Your task to perform on an android device: add a contact Image 0: 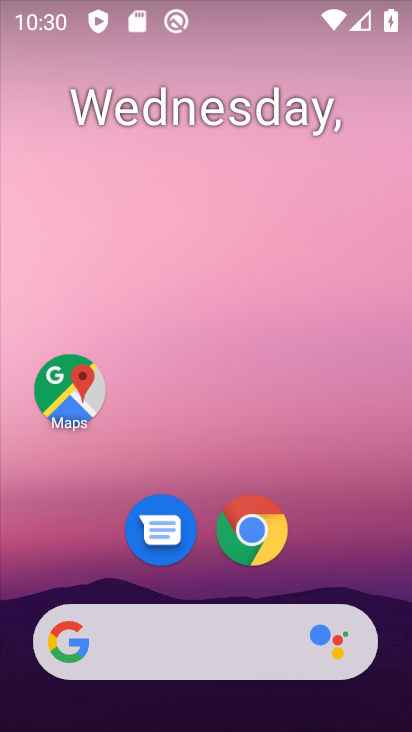
Step 0: drag from (338, 538) to (314, 127)
Your task to perform on an android device: add a contact Image 1: 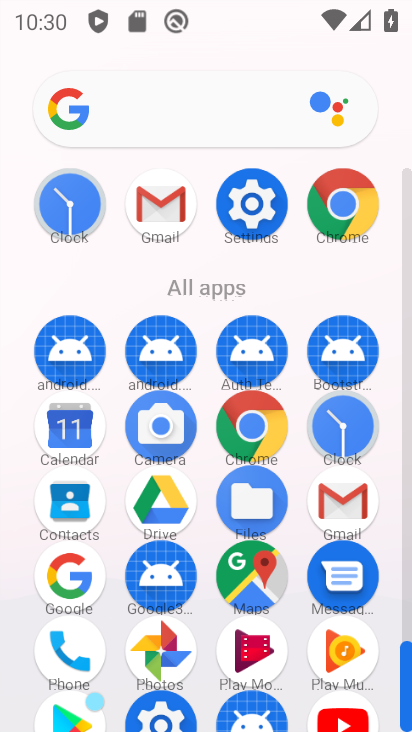
Step 1: click (74, 503)
Your task to perform on an android device: add a contact Image 2: 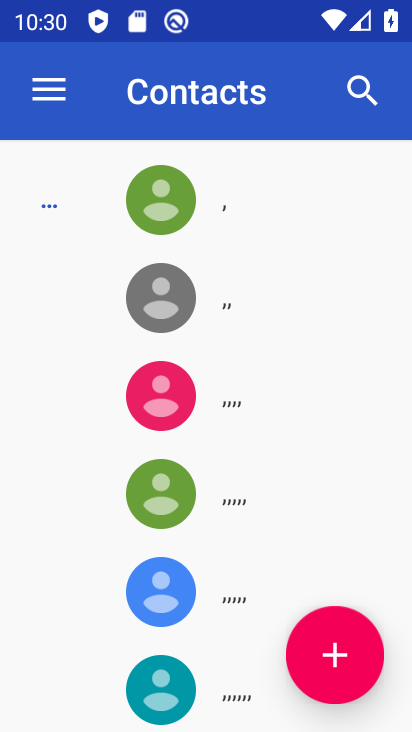
Step 2: click (340, 673)
Your task to perform on an android device: add a contact Image 3: 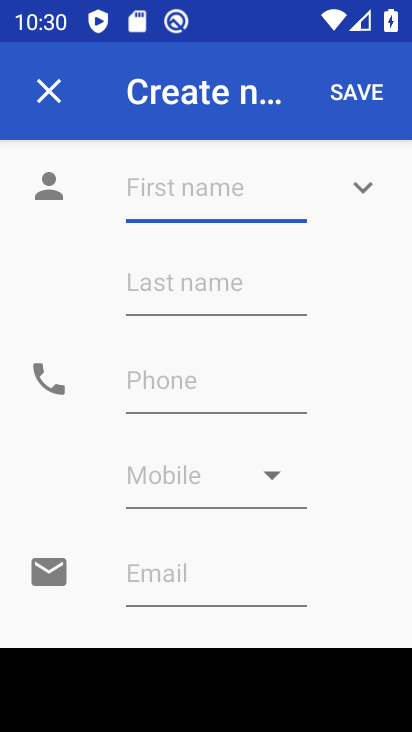
Step 3: type "naman"
Your task to perform on an android device: add a contact Image 4: 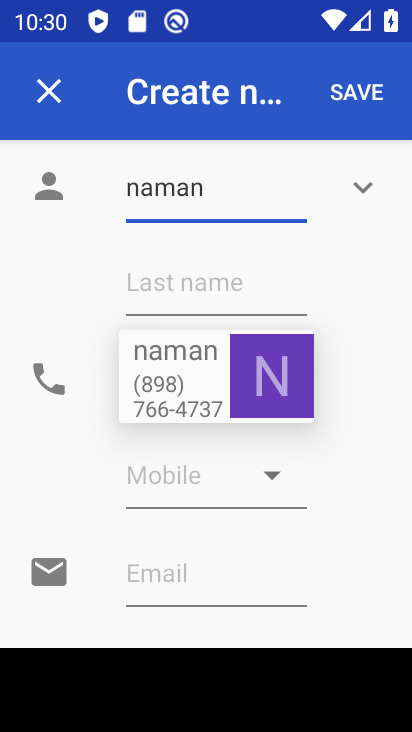
Step 4: click (195, 287)
Your task to perform on an android device: add a contact Image 5: 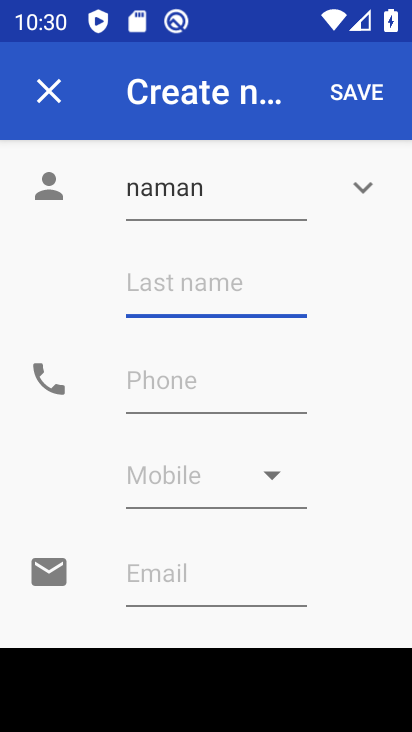
Step 5: type "ojha"
Your task to perform on an android device: add a contact Image 6: 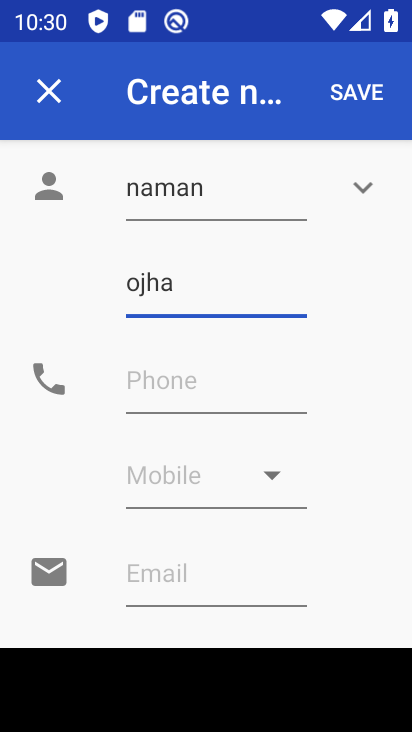
Step 6: click (228, 390)
Your task to perform on an android device: add a contact Image 7: 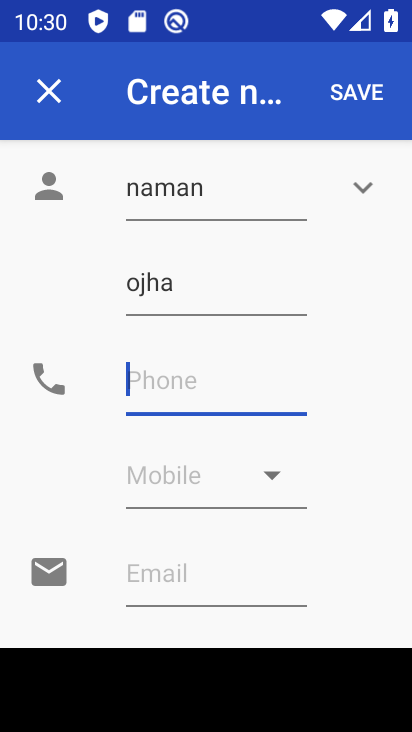
Step 7: type "7878878778"
Your task to perform on an android device: add a contact Image 8: 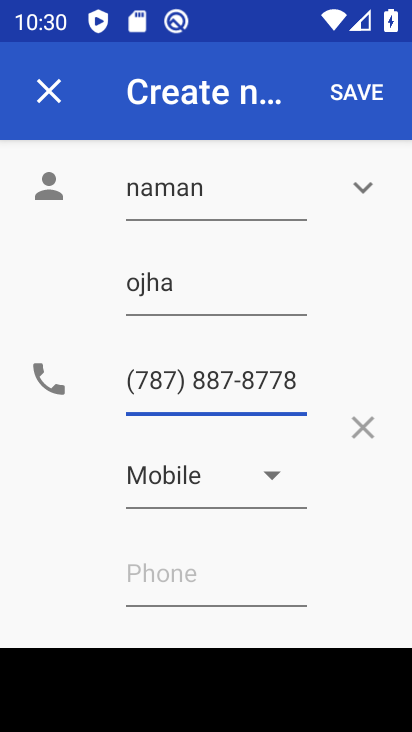
Step 8: click (370, 97)
Your task to perform on an android device: add a contact Image 9: 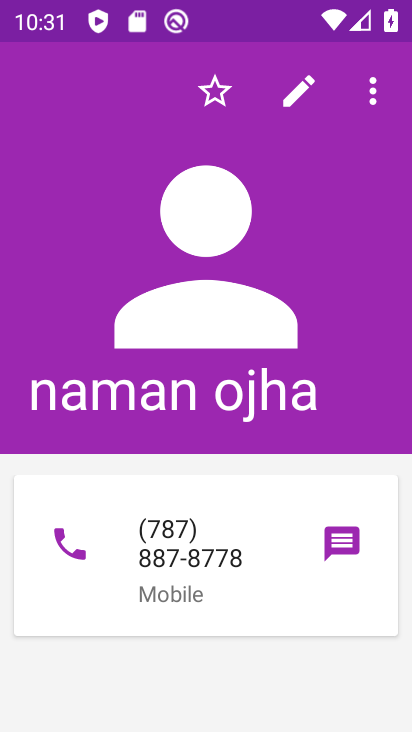
Step 9: task complete